Your task to perform on an android device: check out phone information Image 0: 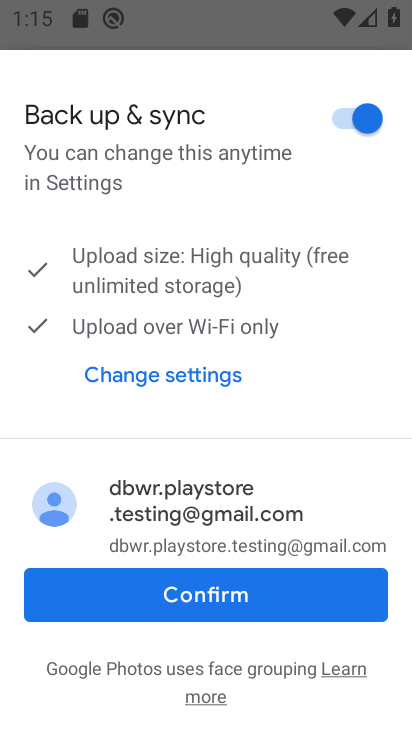
Step 0: press back button
Your task to perform on an android device: check out phone information Image 1: 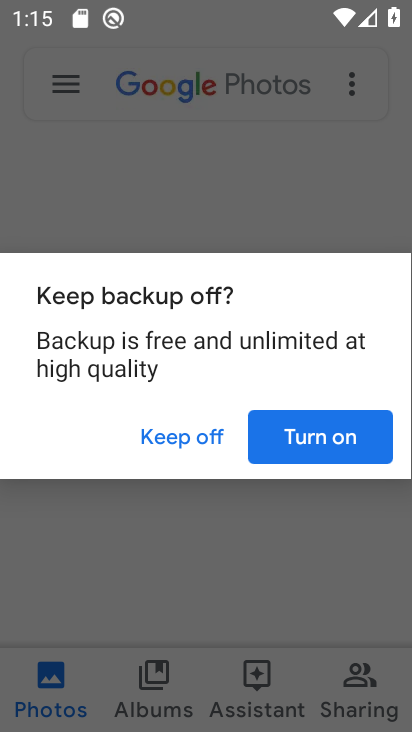
Step 1: press home button
Your task to perform on an android device: check out phone information Image 2: 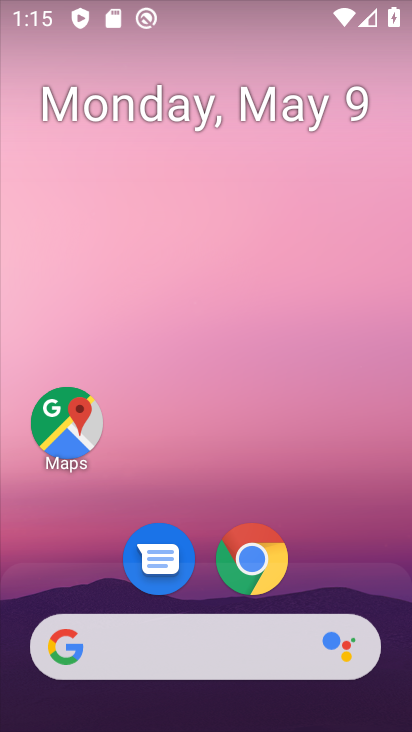
Step 2: drag from (177, 617) to (202, 243)
Your task to perform on an android device: check out phone information Image 3: 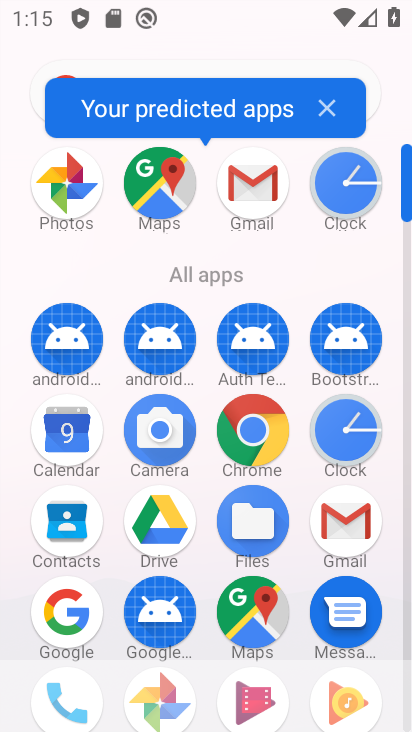
Step 3: drag from (196, 582) to (245, 428)
Your task to perform on an android device: check out phone information Image 4: 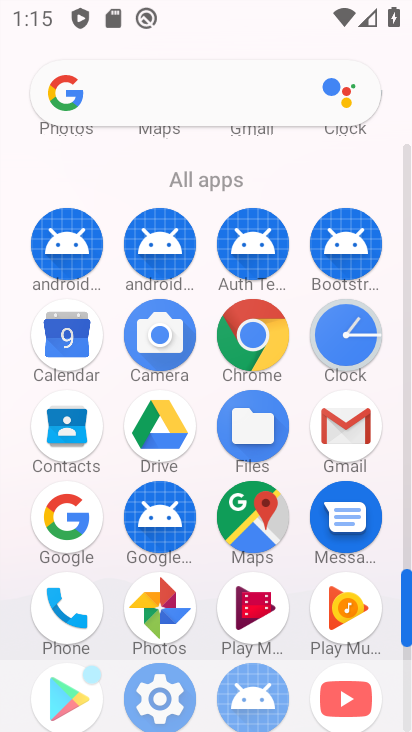
Step 4: click (170, 673)
Your task to perform on an android device: check out phone information Image 5: 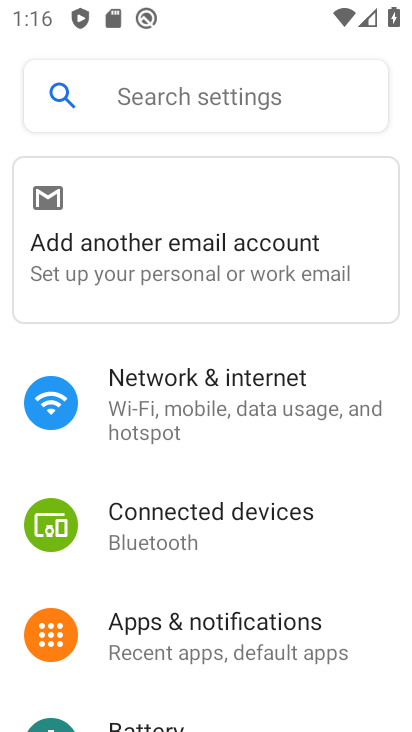
Step 5: drag from (229, 603) to (303, 331)
Your task to perform on an android device: check out phone information Image 6: 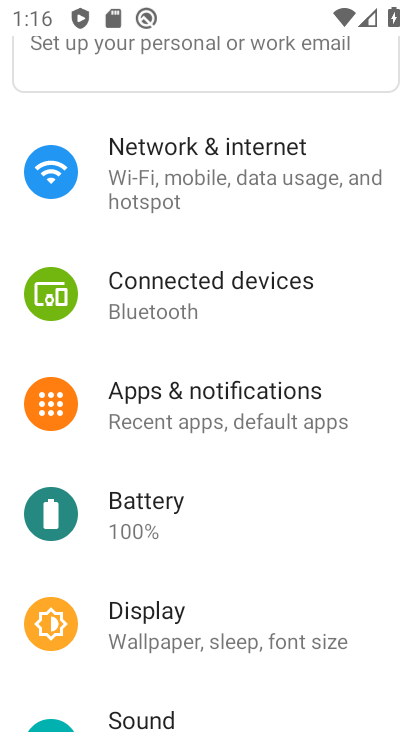
Step 6: drag from (213, 706) to (292, 425)
Your task to perform on an android device: check out phone information Image 7: 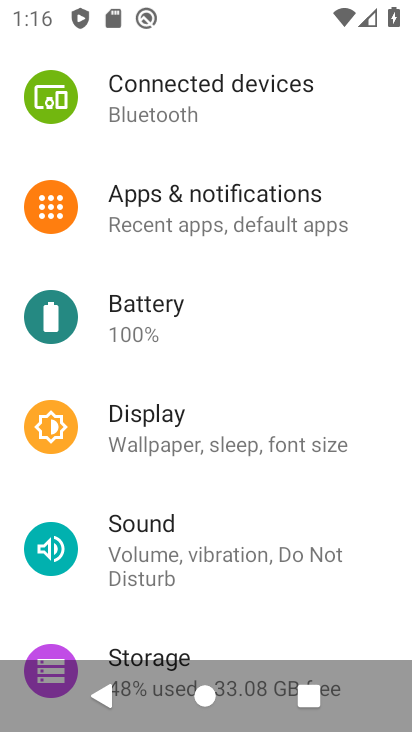
Step 7: drag from (197, 630) to (242, 495)
Your task to perform on an android device: check out phone information Image 8: 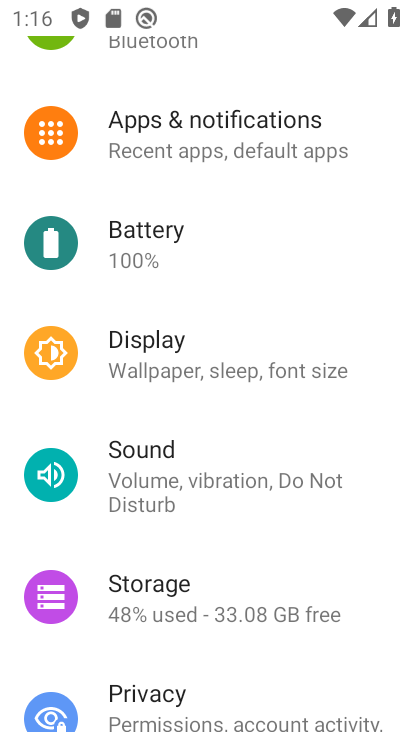
Step 8: drag from (278, 620) to (346, 409)
Your task to perform on an android device: check out phone information Image 9: 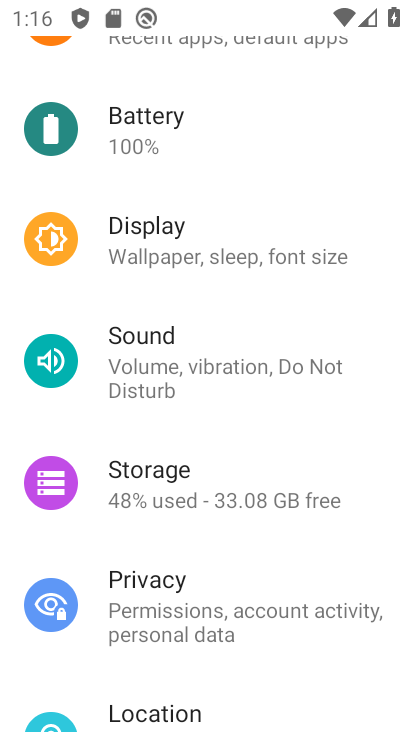
Step 9: drag from (169, 626) to (223, 348)
Your task to perform on an android device: check out phone information Image 10: 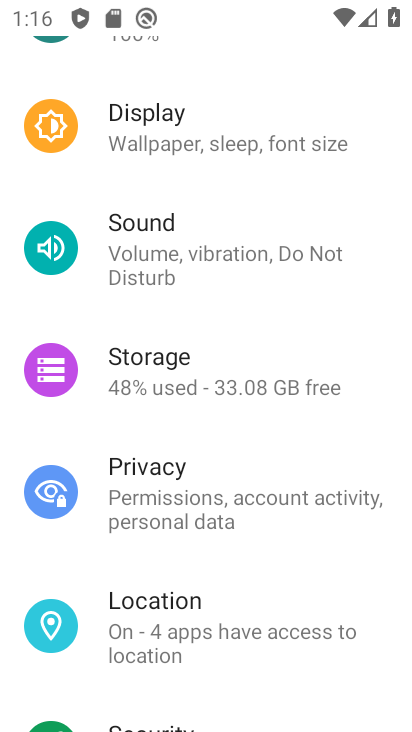
Step 10: drag from (237, 652) to (290, 502)
Your task to perform on an android device: check out phone information Image 11: 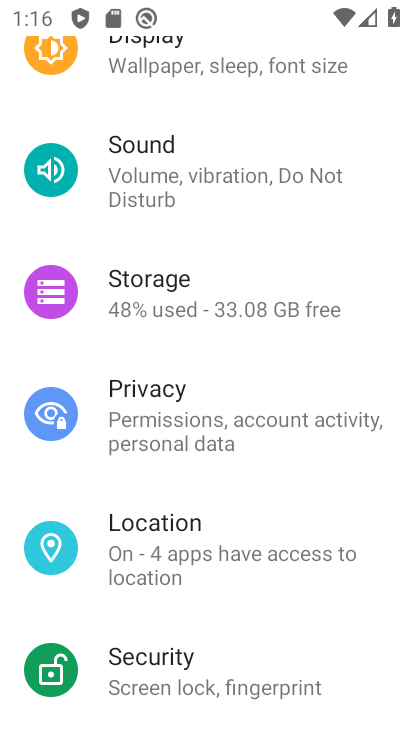
Step 11: drag from (225, 622) to (316, 413)
Your task to perform on an android device: check out phone information Image 12: 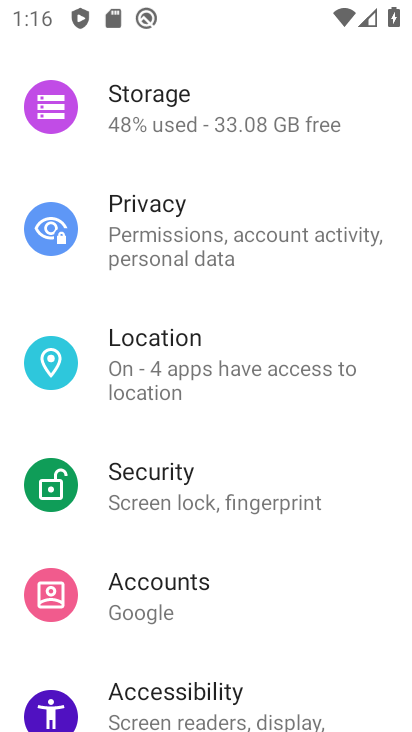
Step 12: drag from (290, 611) to (374, 426)
Your task to perform on an android device: check out phone information Image 13: 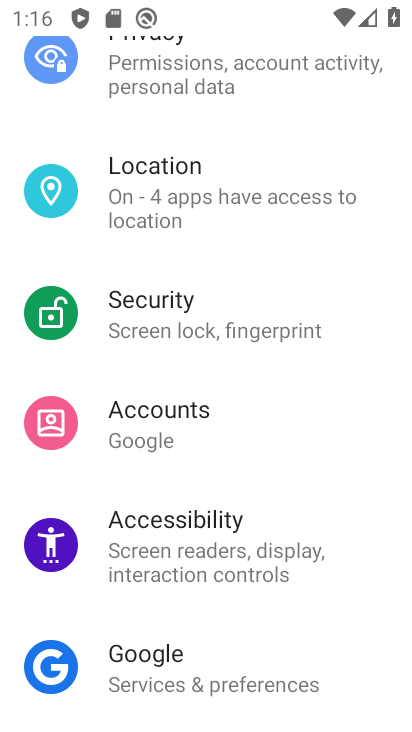
Step 13: drag from (256, 598) to (304, 459)
Your task to perform on an android device: check out phone information Image 14: 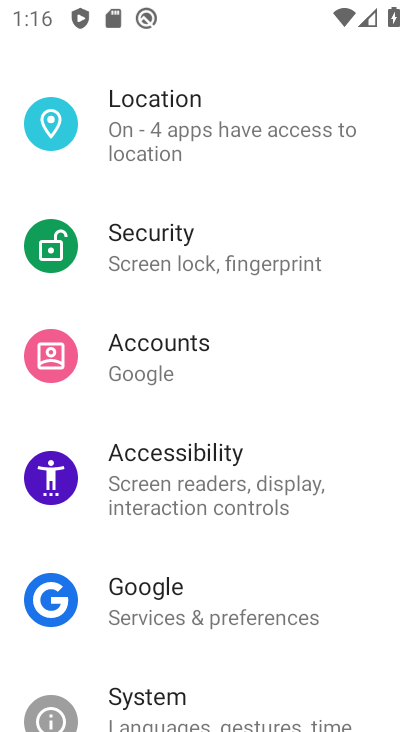
Step 14: drag from (227, 647) to (293, 458)
Your task to perform on an android device: check out phone information Image 15: 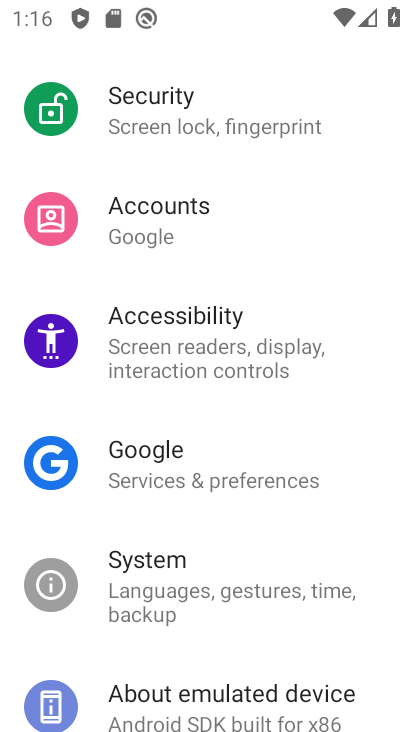
Step 15: click (320, 687)
Your task to perform on an android device: check out phone information Image 16: 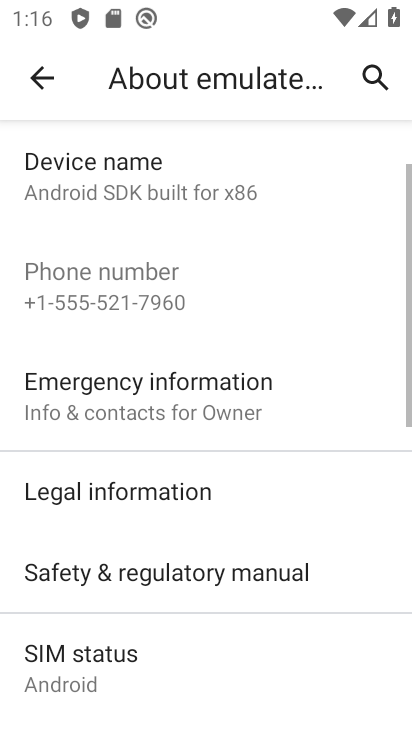
Step 16: task complete